Your task to perform on an android device: Open eBay Image 0: 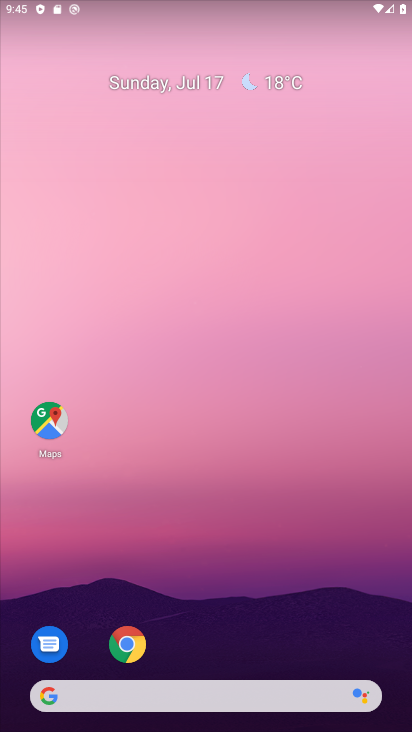
Step 0: click (128, 657)
Your task to perform on an android device: Open eBay Image 1: 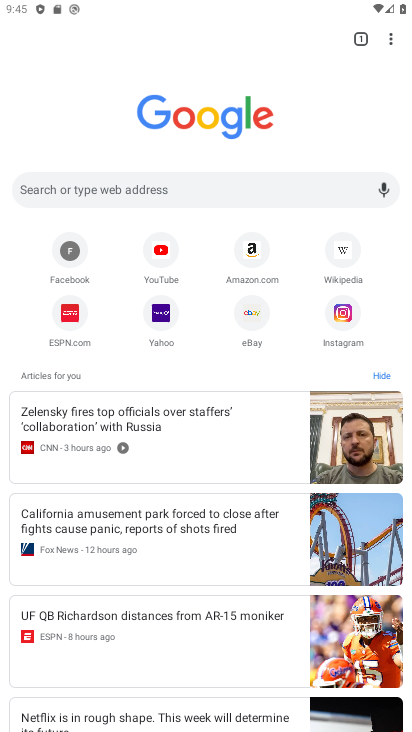
Step 1: click (194, 187)
Your task to perform on an android device: Open eBay Image 2: 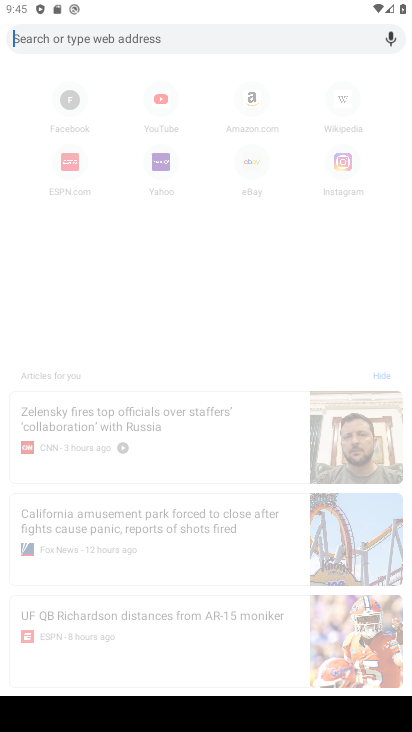
Step 2: type "eBay"
Your task to perform on an android device: Open eBay Image 3: 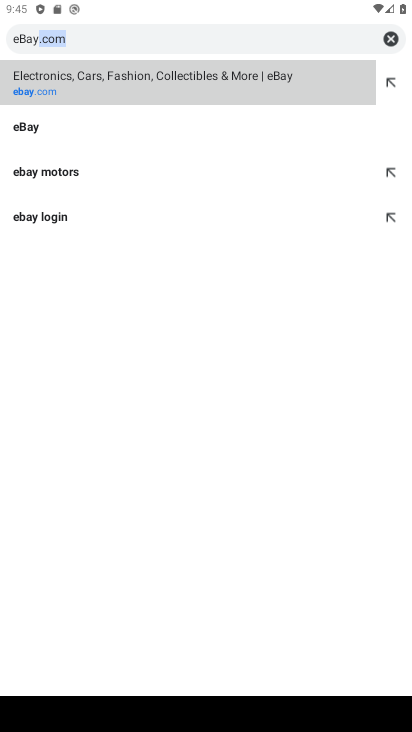
Step 3: click (33, 127)
Your task to perform on an android device: Open eBay Image 4: 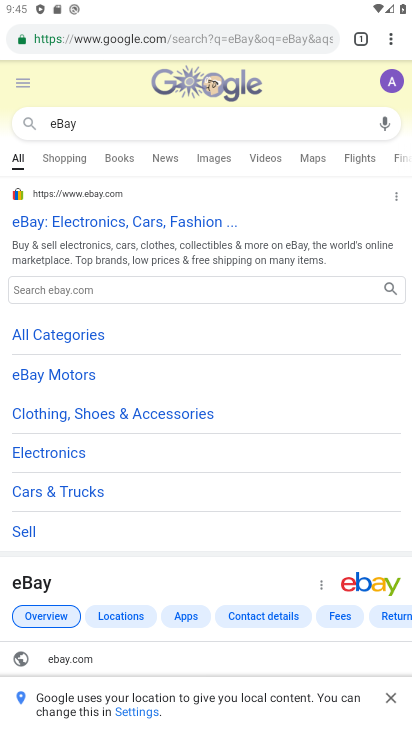
Step 4: task complete